Your task to perform on an android device: make emails show in primary in the gmail app Image 0: 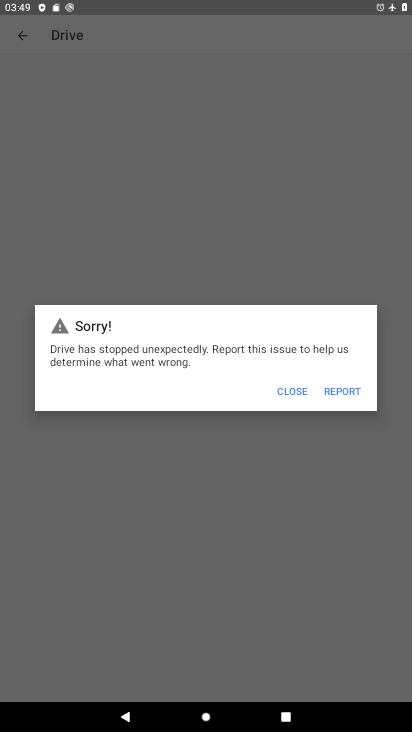
Step 0: click (292, 388)
Your task to perform on an android device: make emails show in primary in the gmail app Image 1: 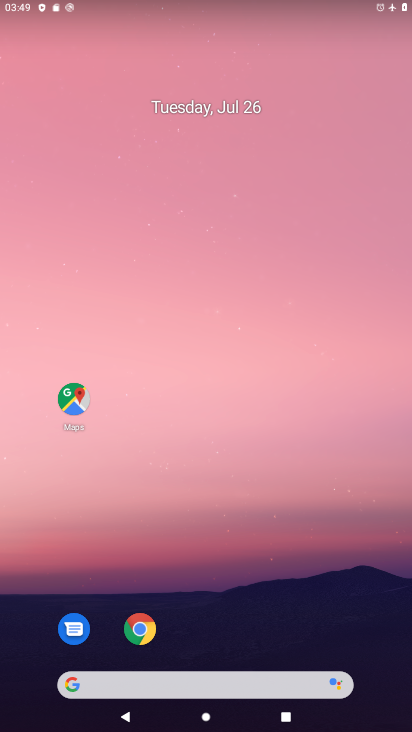
Step 1: drag from (197, 650) to (211, 162)
Your task to perform on an android device: make emails show in primary in the gmail app Image 2: 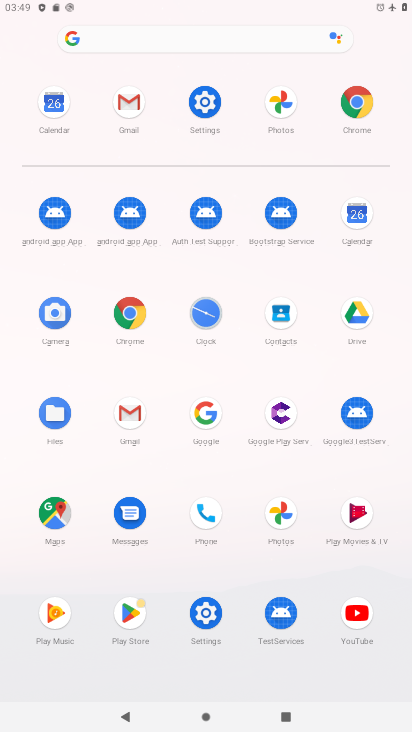
Step 2: click (133, 412)
Your task to perform on an android device: make emails show in primary in the gmail app Image 3: 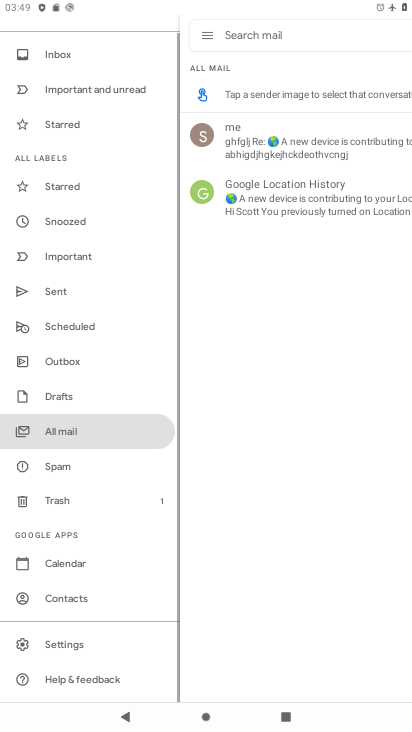
Step 3: drag from (62, 162) to (66, 364)
Your task to perform on an android device: make emails show in primary in the gmail app Image 4: 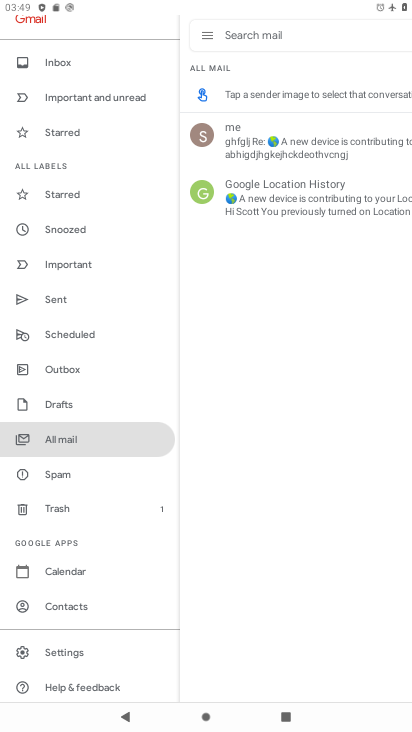
Step 4: click (48, 53)
Your task to perform on an android device: make emails show in primary in the gmail app Image 5: 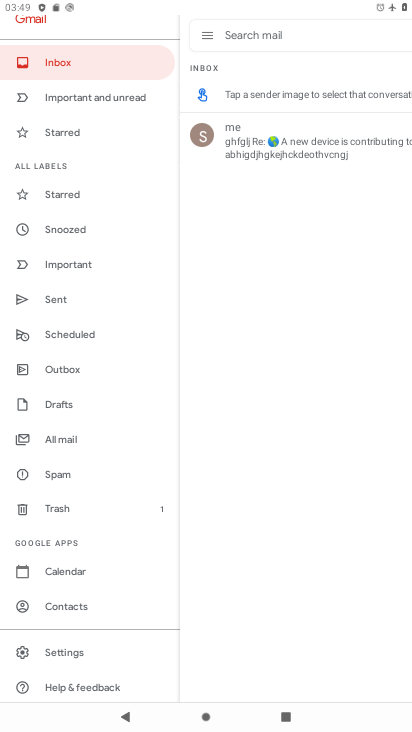
Step 5: click (55, 651)
Your task to perform on an android device: make emails show in primary in the gmail app Image 6: 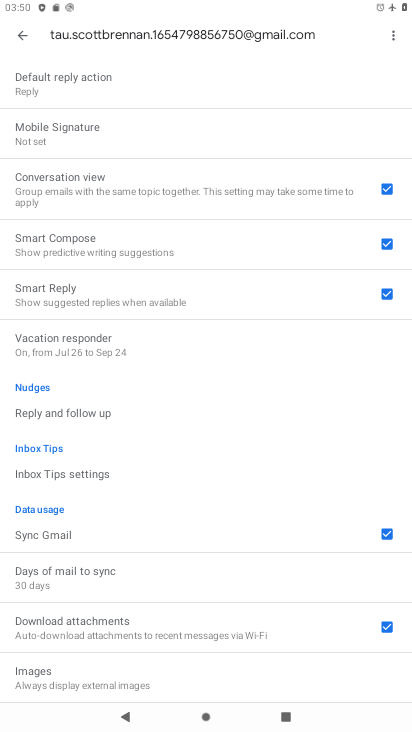
Step 6: click (102, 139)
Your task to perform on an android device: make emails show in primary in the gmail app Image 7: 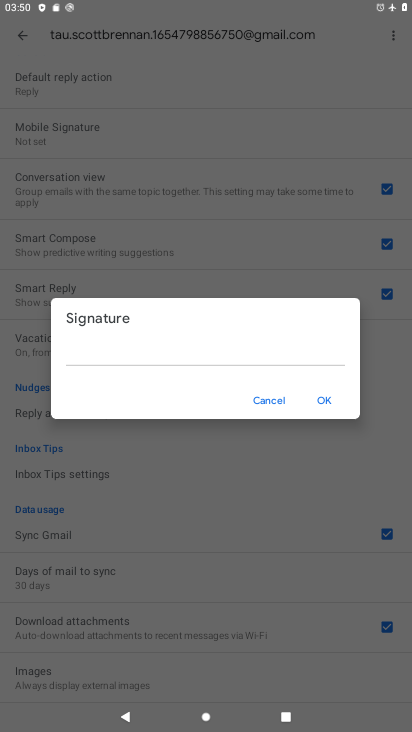
Step 7: click (274, 400)
Your task to perform on an android device: make emails show in primary in the gmail app Image 8: 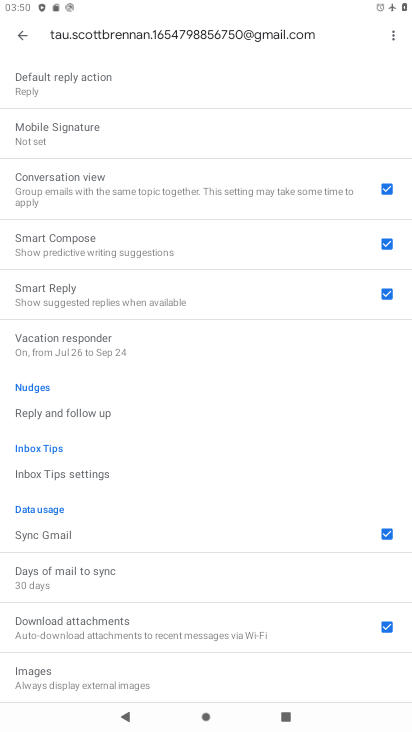
Step 8: task complete